Your task to perform on an android device: check android version Image 0: 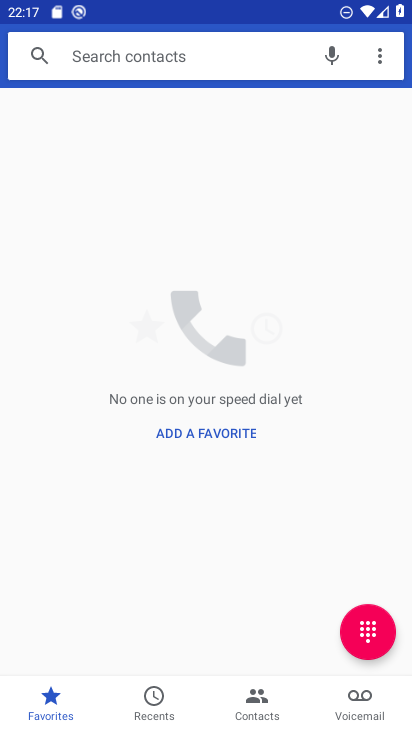
Step 0: press home button
Your task to perform on an android device: check android version Image 1: 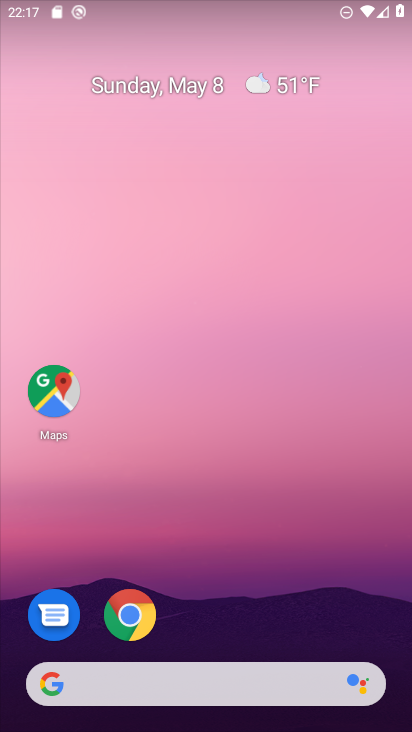
Step 1: drag from (332, 608) to (330, 79)
Your task to perform on an android device: check android version Image 2: 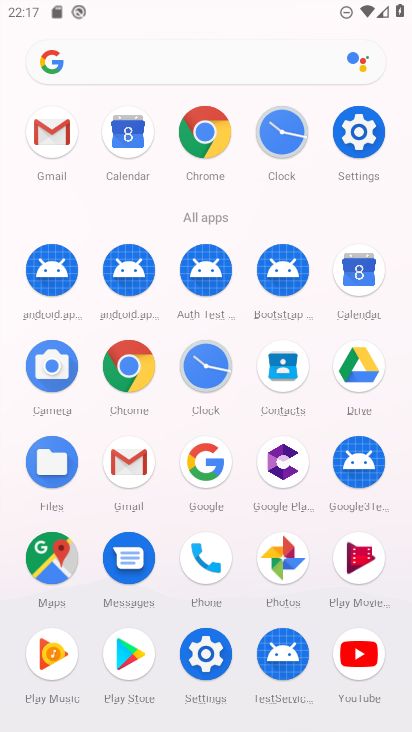
Step 2: click (383, 149)
Your task to perform on an android device: check android version Image 3: 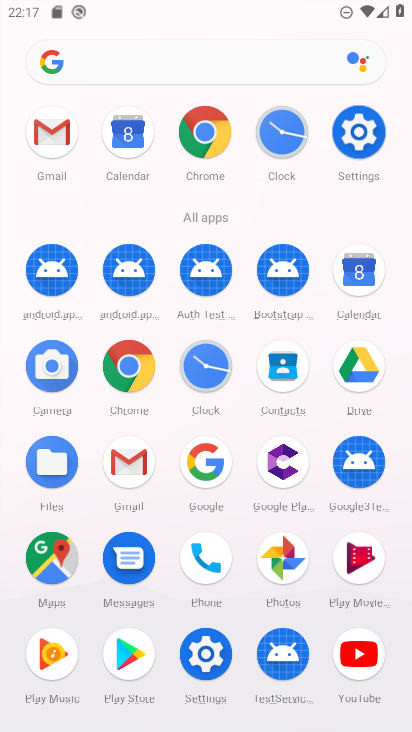
Step 3: click (351, 144)
Your task to perform on an android device: check android version Image 4: 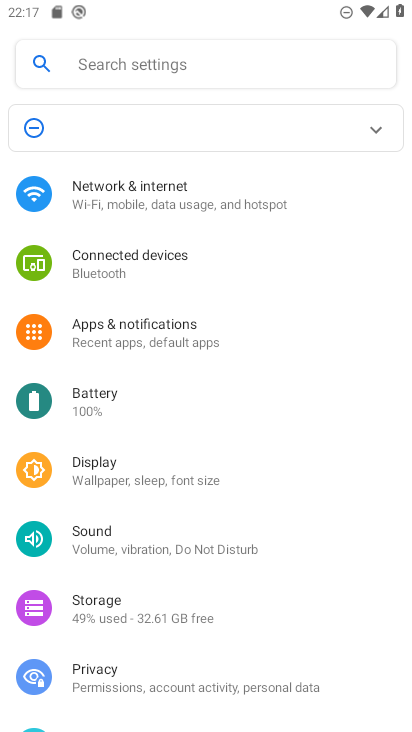
Step 4: drag from (262, 588) to (311, 58)
Your task to perform on an android device: check android version Image 5: 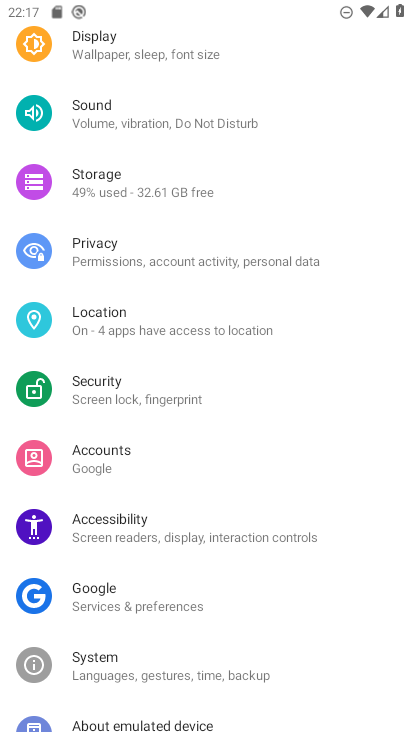
Step 5: drag from (239, 557) to (311, 47)
Your task to perform on an android device: check android version Image 6: 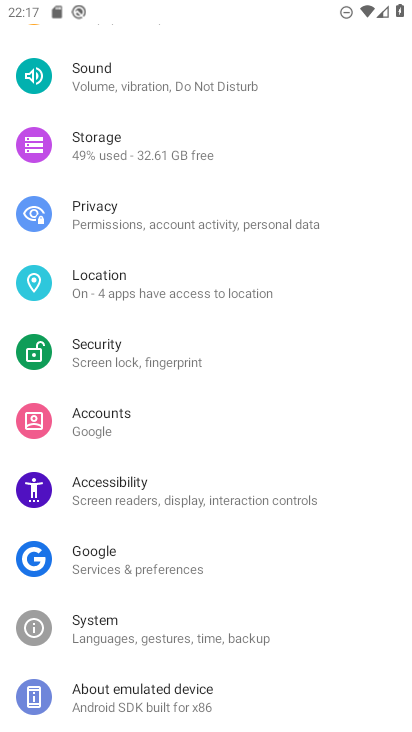
Step 6: click (186, 705)
Your task to perform on an android device: check android version Image 7: 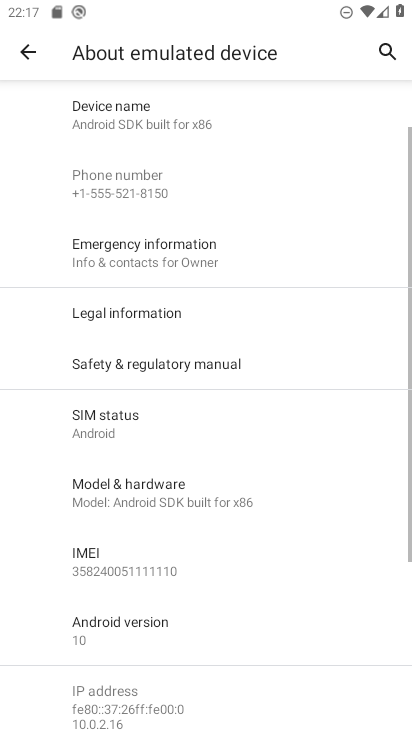
Step 7: click (101, 621)
Your task to perform on an android device: check android version Image 8: 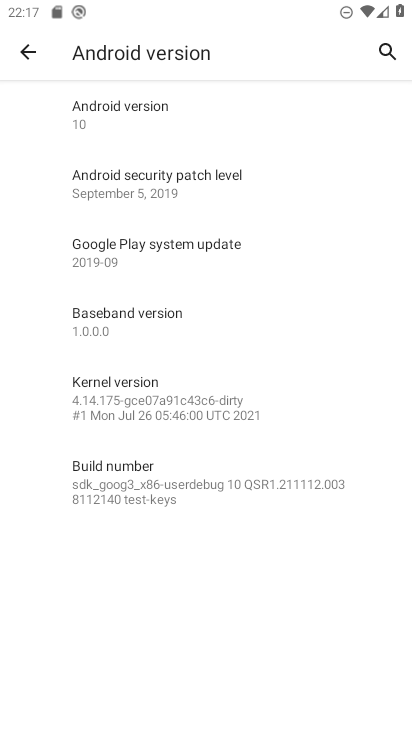
Step 8: click (126, 108)
Your task to perform on an android device: check android version Image 9: 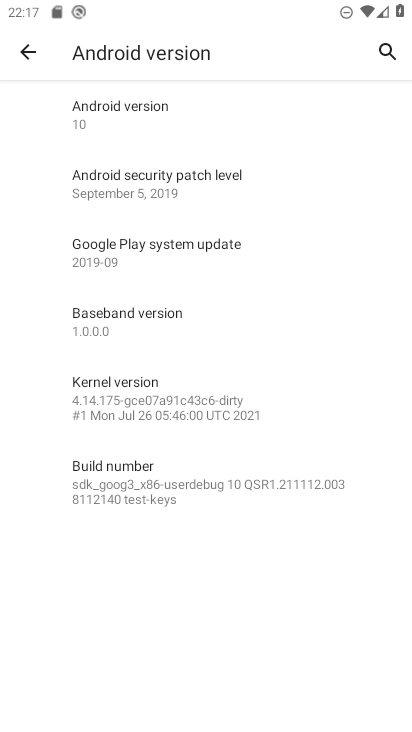
Step 9: task complete